Your task to perform on an android device: set the timer Image 0: 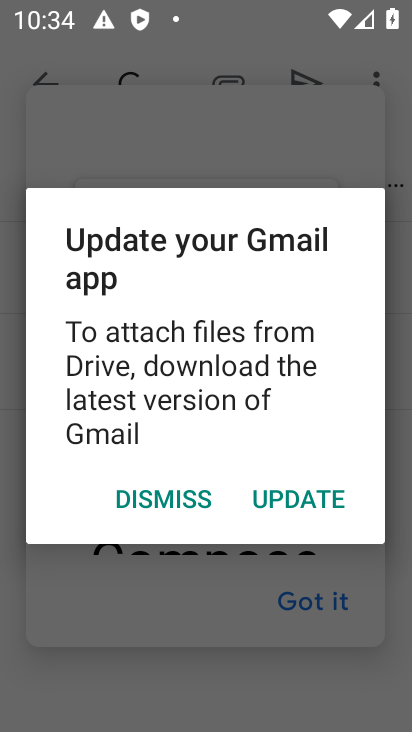
Step 0: task complete